Your task to perform on an android device: Check the news Image 0: 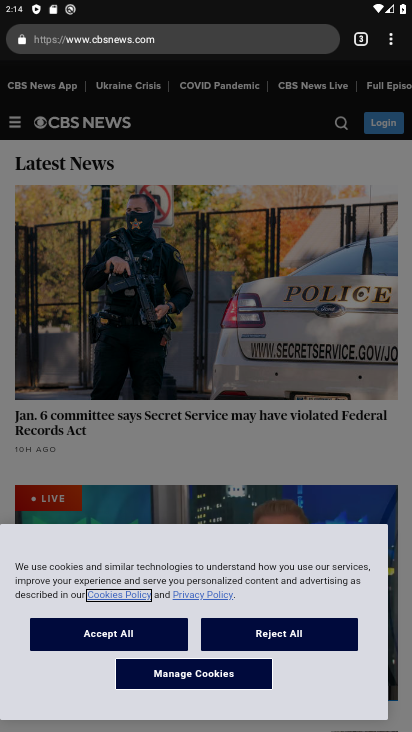
Step 0: press home button
Your task to perform on an android device: Check the news Image 1: 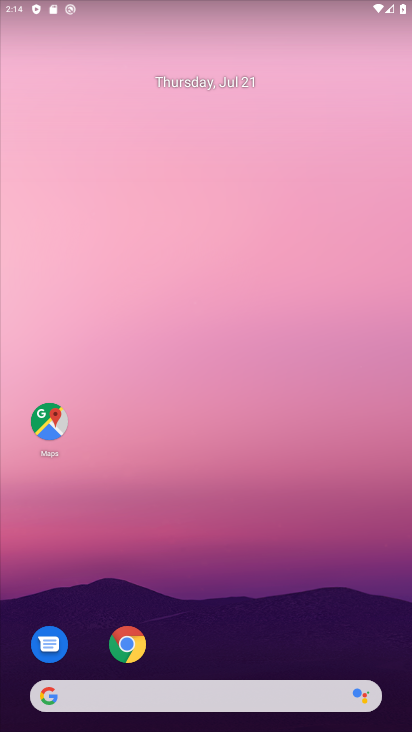
Step 1: click (130, 644)
Your task to perform on an android device: Check the news Image 2: 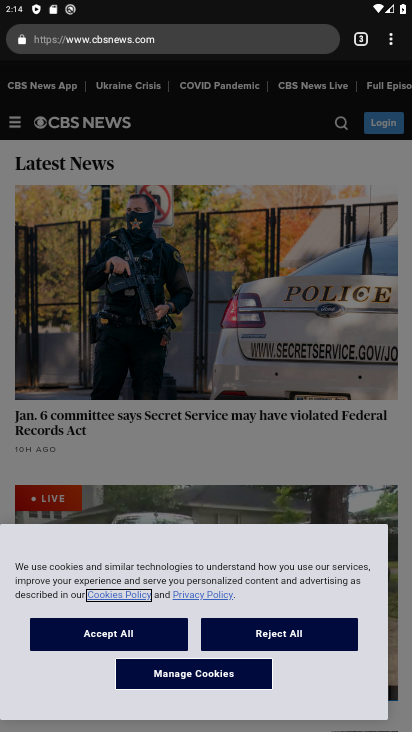
Step 2: click (193, 48)
Your task to perform on an android device: Check the news Image 3: 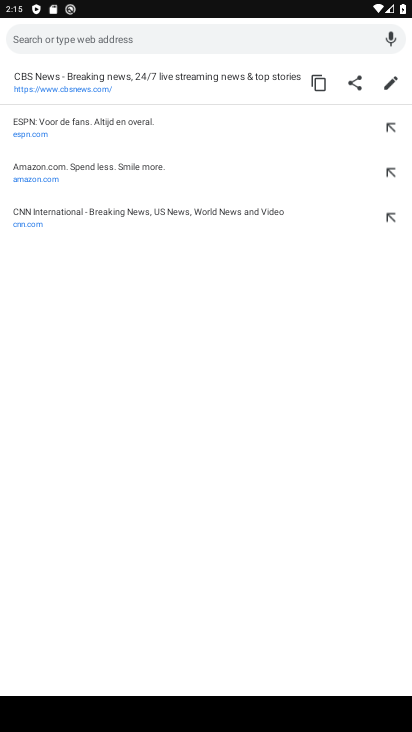
Step 3: type "Check the news"
Your task to perform on an android device: Check the news Image 4: 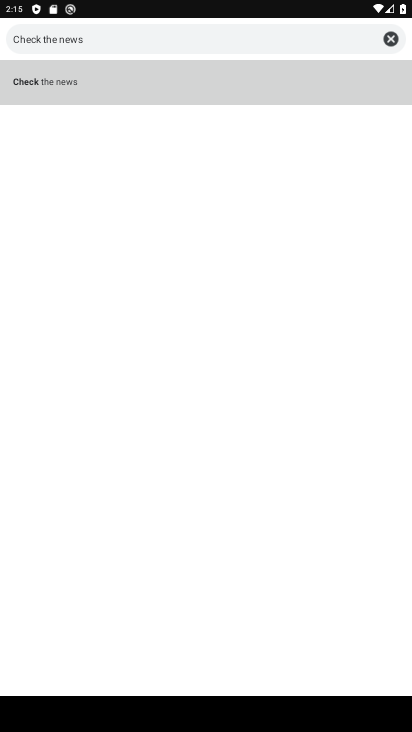
Step 4: click (158, 89)
Your task to perform on an android device: Check the news Image 5: 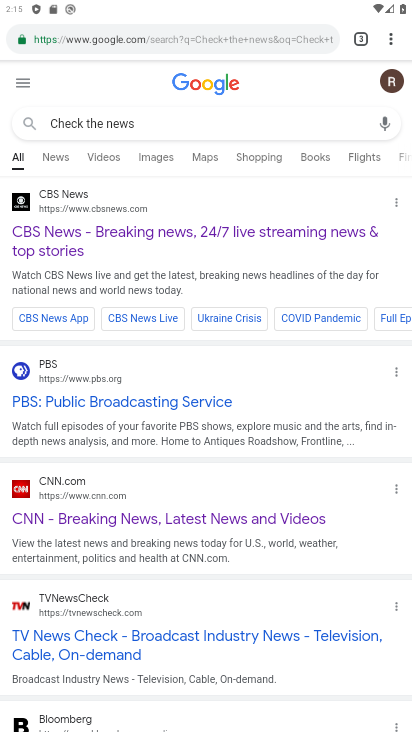
Step 5: click (166, 226)
Your task to perform on an android device: Check the news Image 6: 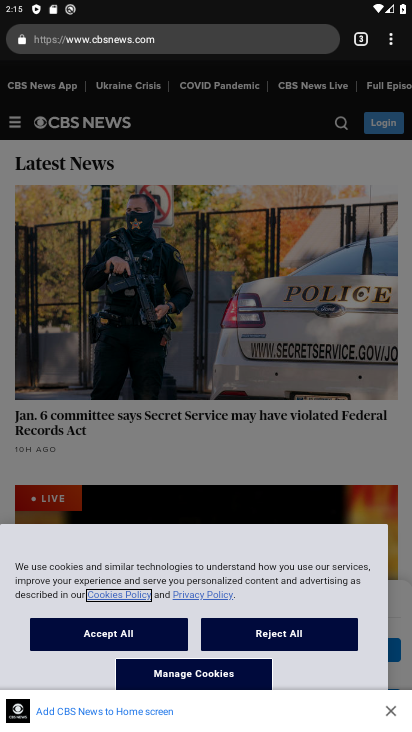
Step 6: task complete